Your task to perform on an android device: turn off javascript in the chrome app Image 0: 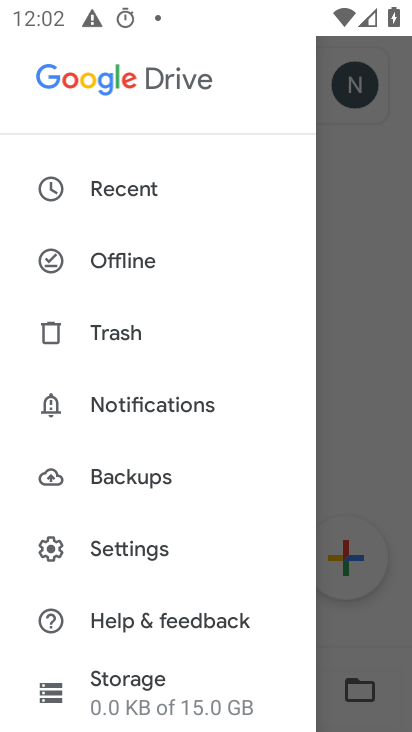
Step 0: press home button
Your task to perform on an android device: turn off javascript in the chrome app Image 1: 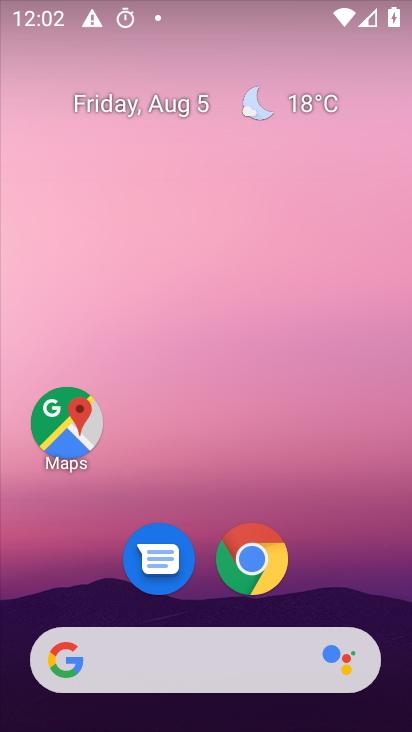
Step 1: click (275, 536)
Your task to perform on an android device: turn off javascript in the chrome app Image 2: 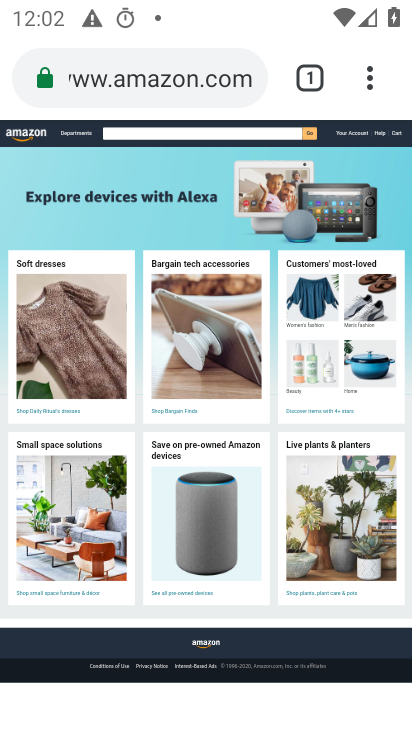
Step 2: click (370, 72)
Your task to perform on an android device: turn off javascript in the chrome app Image 3: 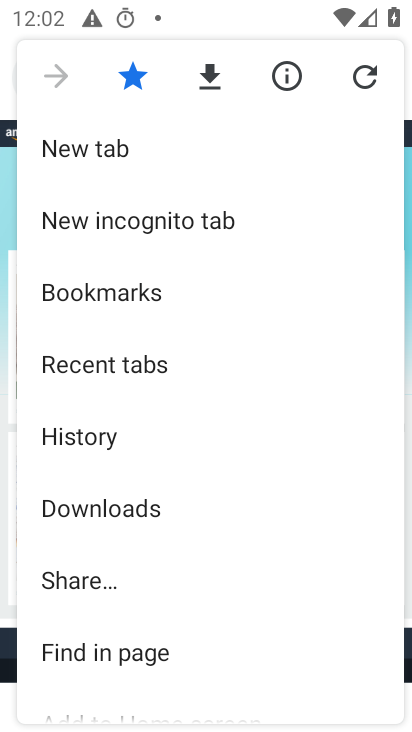
Step 3: drag from (191, 675) to (214, 95)
Your task to perform on an android device: turn off javascript in the chrome app Image 4: 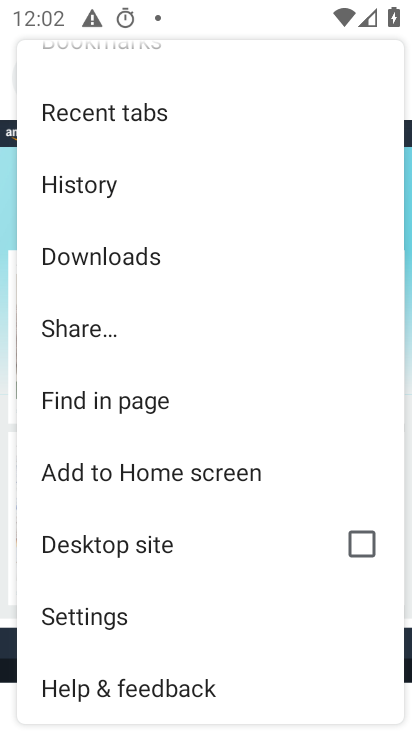
Step 4: click (101, 617)
Your task to perform on an android device: turn off javascript in the chrome app Image 5: 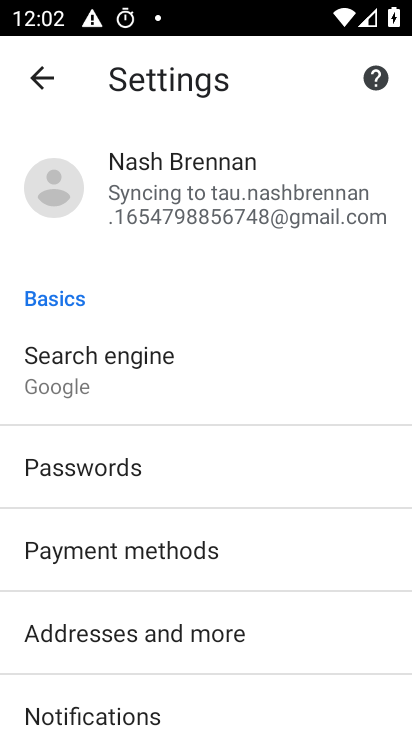
Step 5: drag from (376, 652) to (351, 259)
Your task to perform on an android device: turn off javascript in the chrome app Image 6: 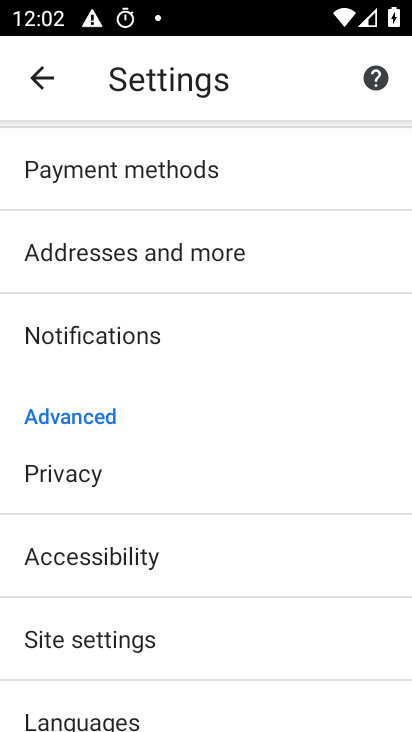
Step 6: click (55, 639)
Your task to perform on an android device: turn off javascript in the chrome app Image 7: 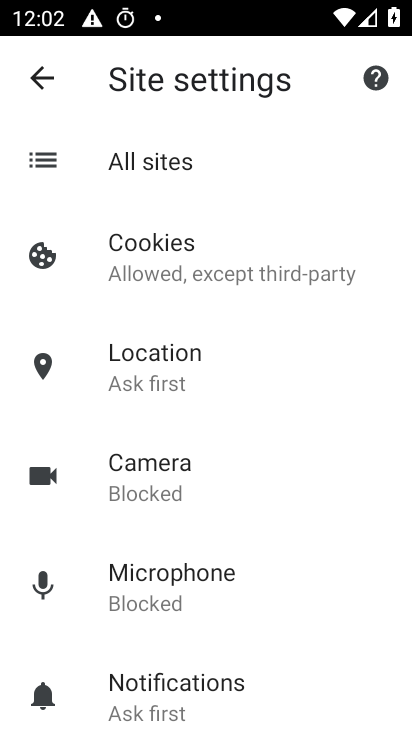
Step 7: drag from (331, 652) to (355, 341)
Your task to perform on an android device: turn off javascript in the chrome app Image 8: 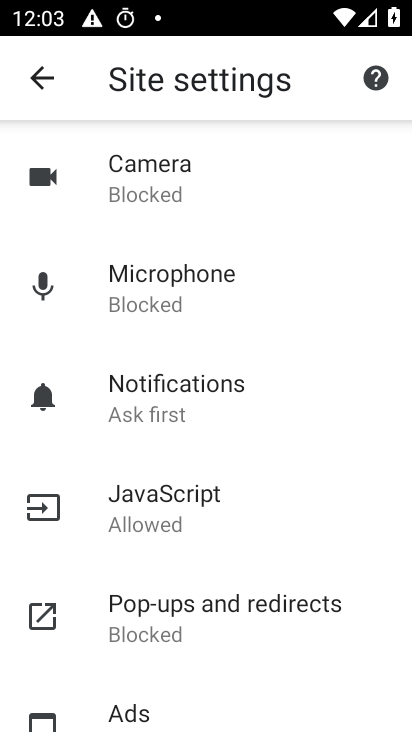
Step 8: click (165, 513)
Your task to perform on an android device: turn off javascript in the chrome app Image 9: 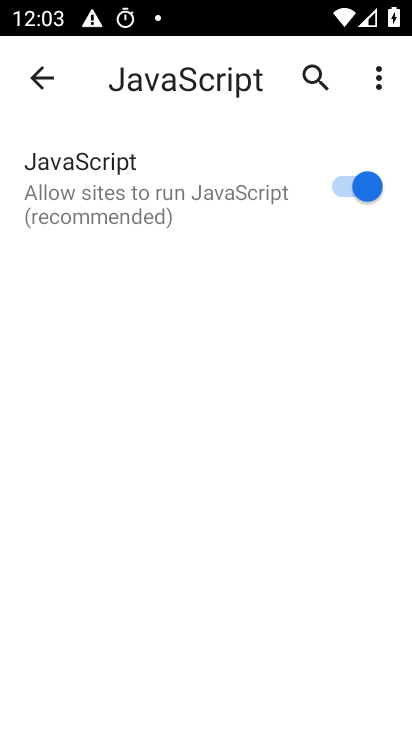
Step 9: click (372, 188)
Your task to perform on an android device: turn off javascript in the chrome app Image 10: 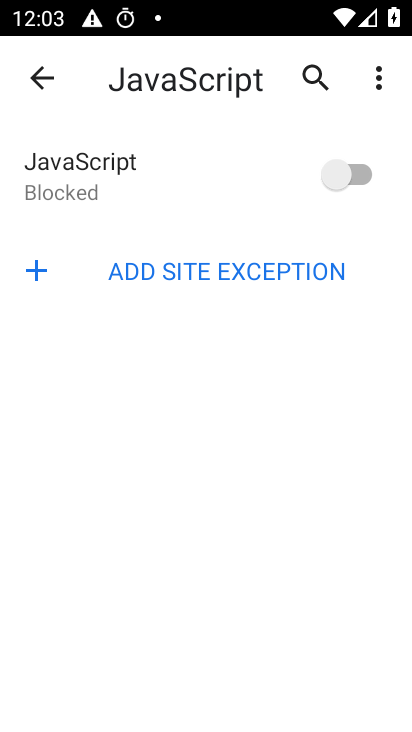
Step 10: task complete